Your task to perform on an android device: open app "Flipkart Online Shopping App" (install if not already installed), go to login, and select forgot password Image 0: 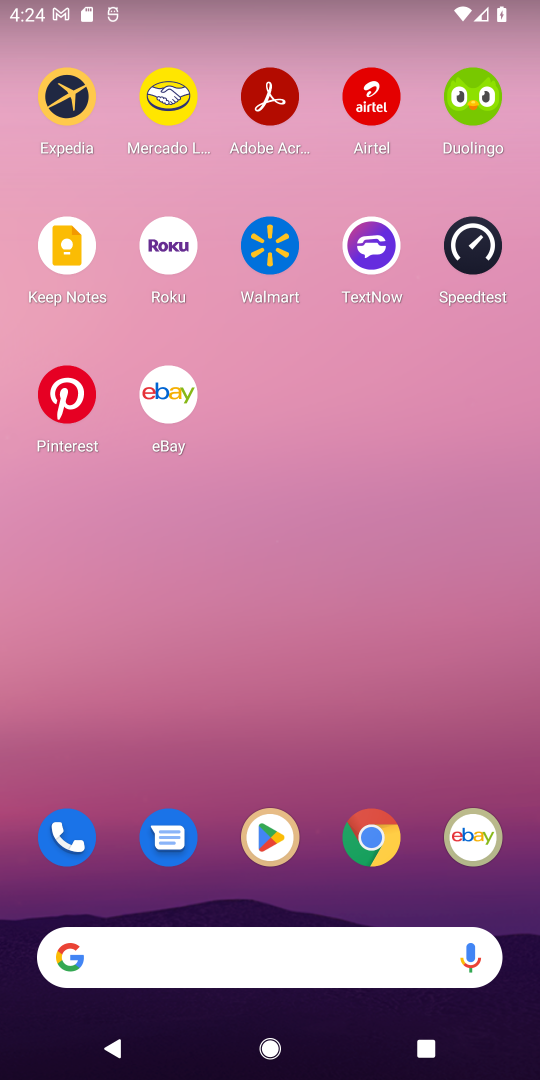
Step 0: press home button
Your task to perform on an android device: open app "Flipkart Online Shopping App" (install if not already installed), go to login, and select forgot password Image 1: 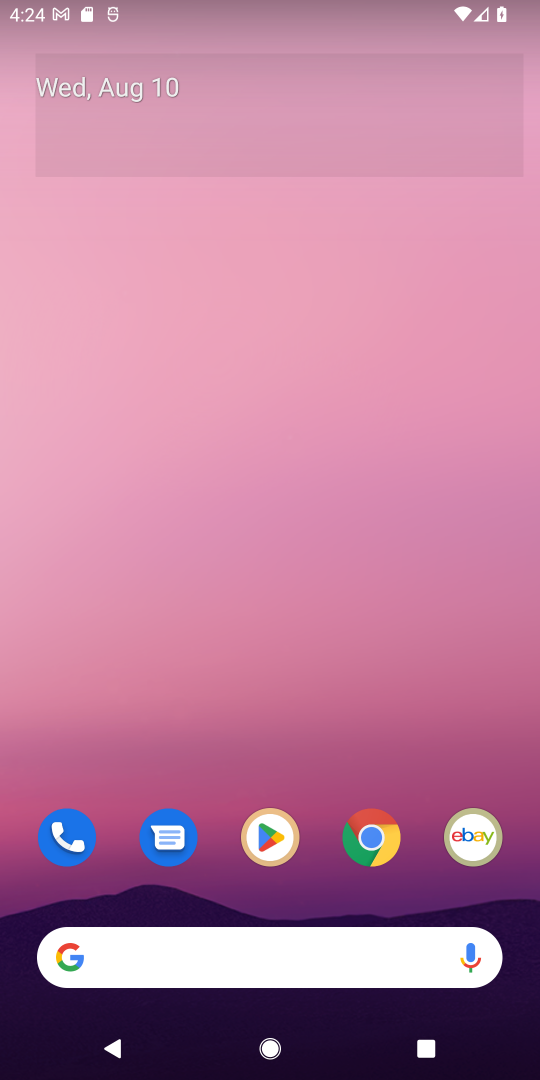
Step 1: click (268, 834)
Your task to perform on an android device: open app "Flipkart Online Shopping App" (install if not already installed), go to login, and select forgot password Image 2: 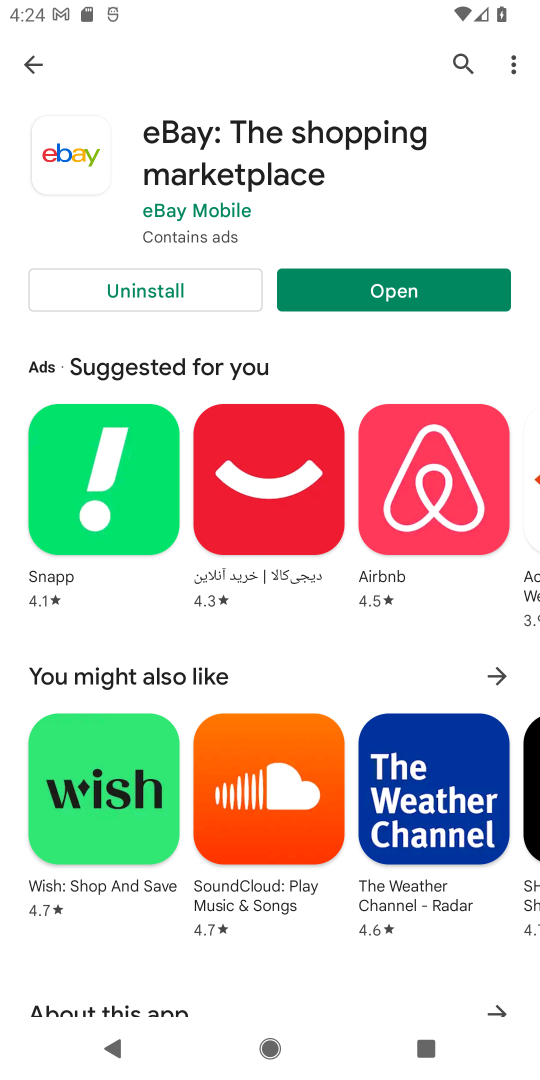
Step 2: click (457, 56)
Your task to perform on an android device: open app "Flipkart Online Shopping App" (install if not already installed), go to login, and select forgot password Image 3: 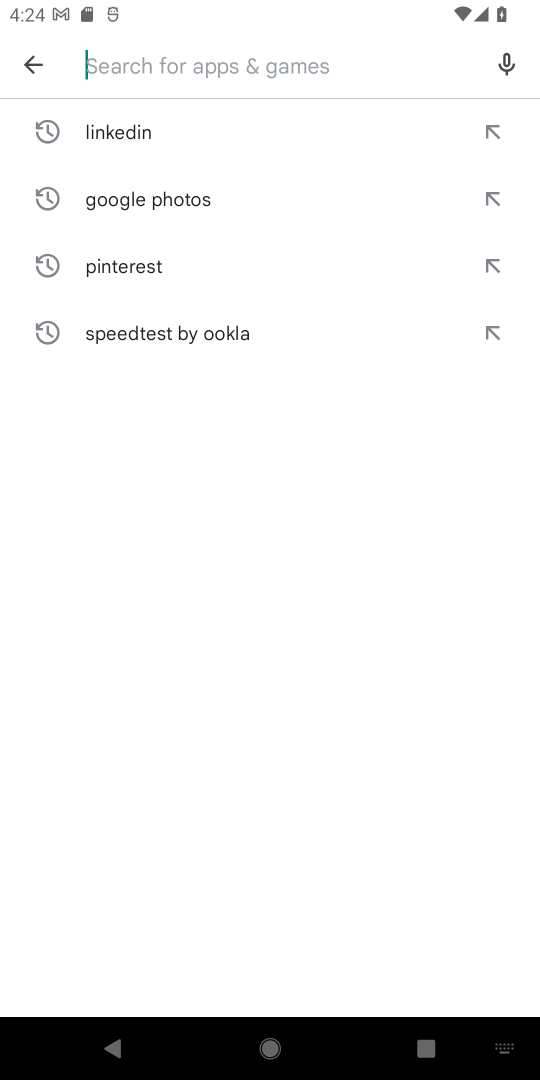
Step 3: type "Flipkart Online Shopping App"
Your task to perform on an android device: open app "Flipkart Online Shopping App" (install if not already installed), go to login, and select forgot password Image 4: 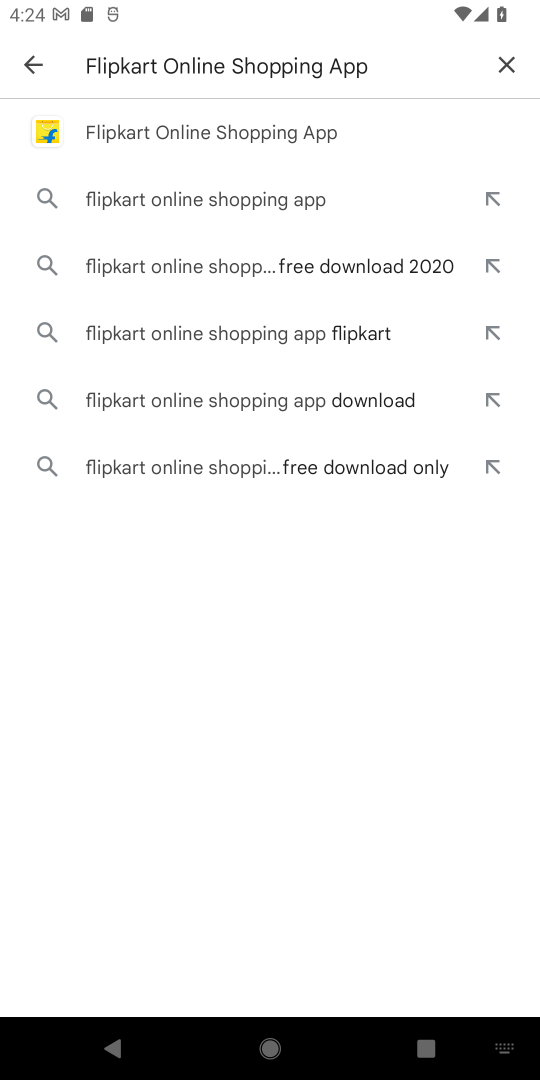
Step 4: click (320, 127)
Your task to perform on an android device: open app "Flipkart Online Shopping App" (install if not already installed), go to login, and select forgot password Image 5: 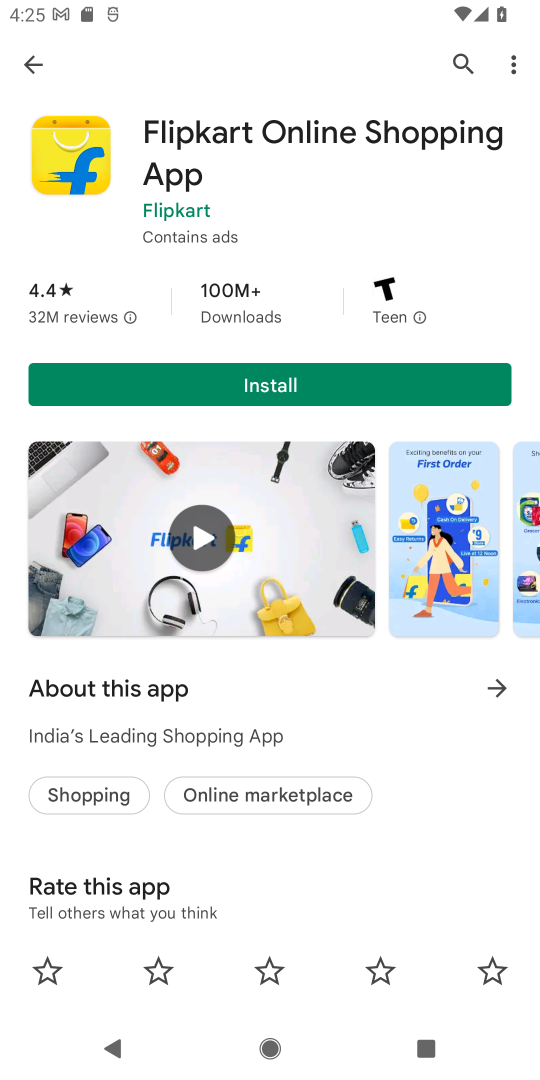
Step 5: click (303, 383)
Your task to perform on an android device: open app "Flipkart Online Shopping App" (install if not already installed), go to login, and select forgot password Image 6: 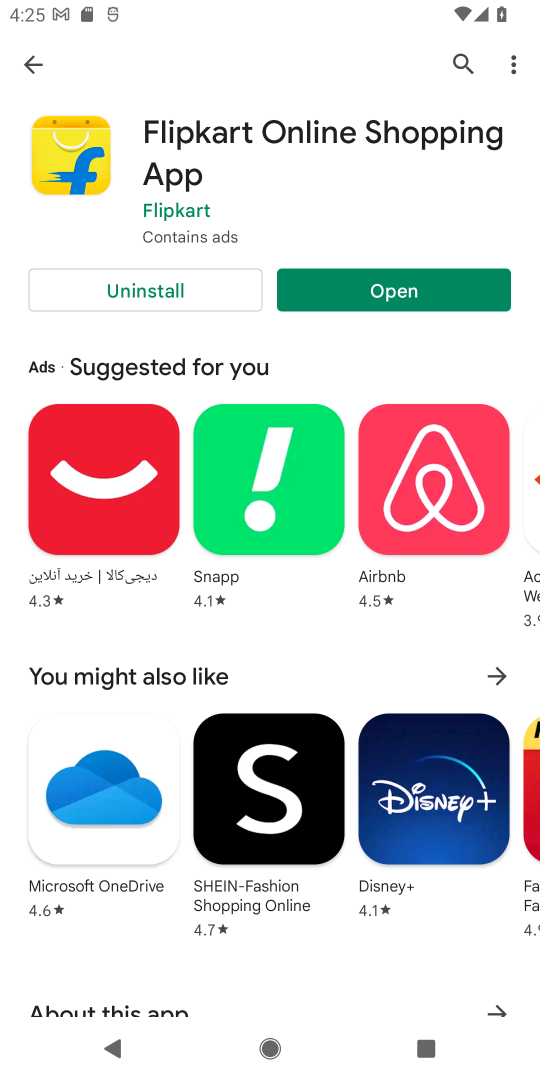
Step 6: click (406, 297)
Your task to perform on an android device: open app "Flipkart Online Shopping App" (install if not already installed), go to login, and select forgot password Image 7: 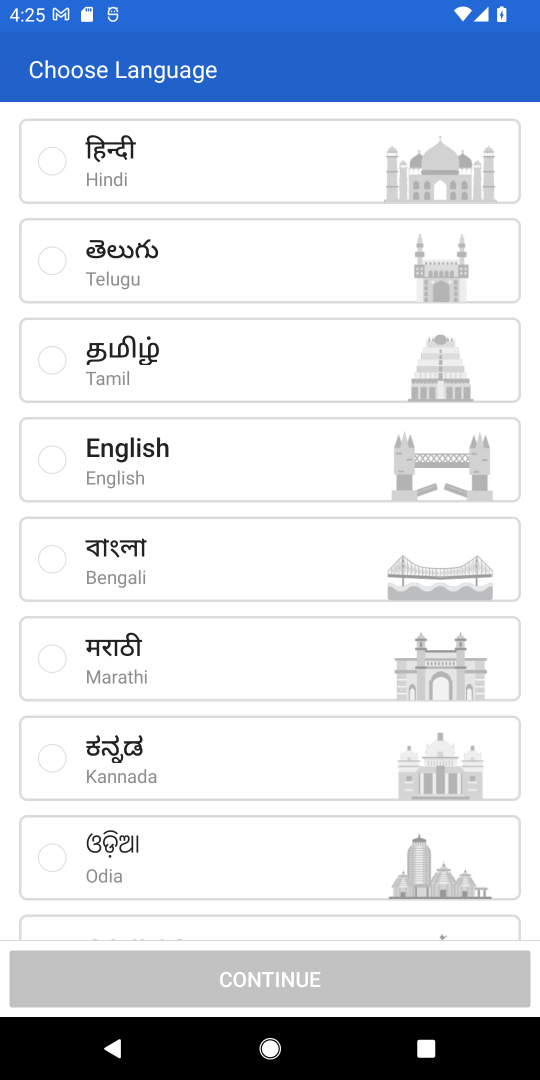
Step 7: click (214, 457)
Your task to perform on an android device: open app "Flipkart Online Shopping App" (install if not already installed), go to login, and select forgot password Image 8: 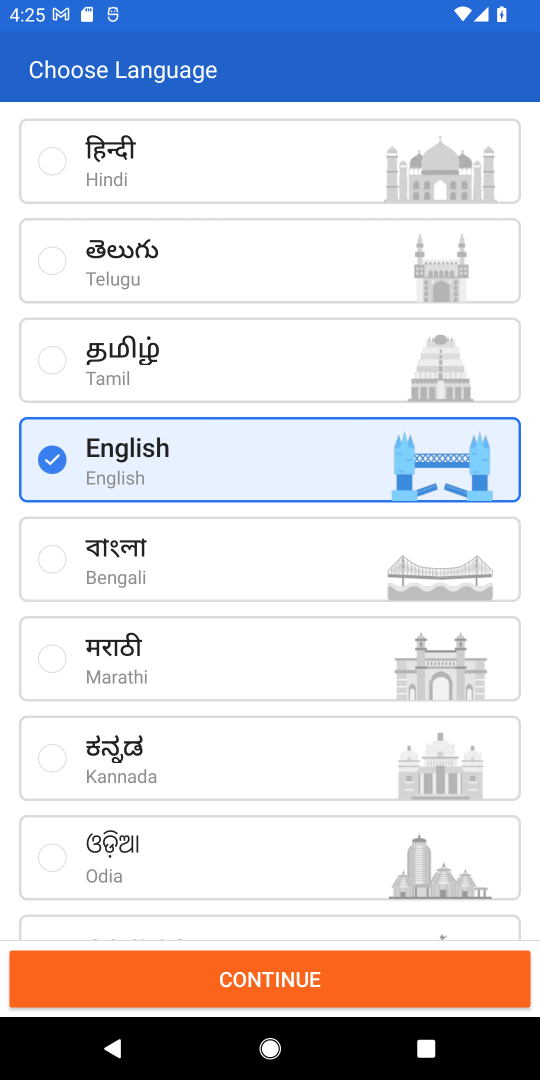
Step 8: click (276, 974)
Your task to perform on an android device: open app "Flipkart Online Shopping App" (install if not already installed), go to login, and select forgot password Image 9: 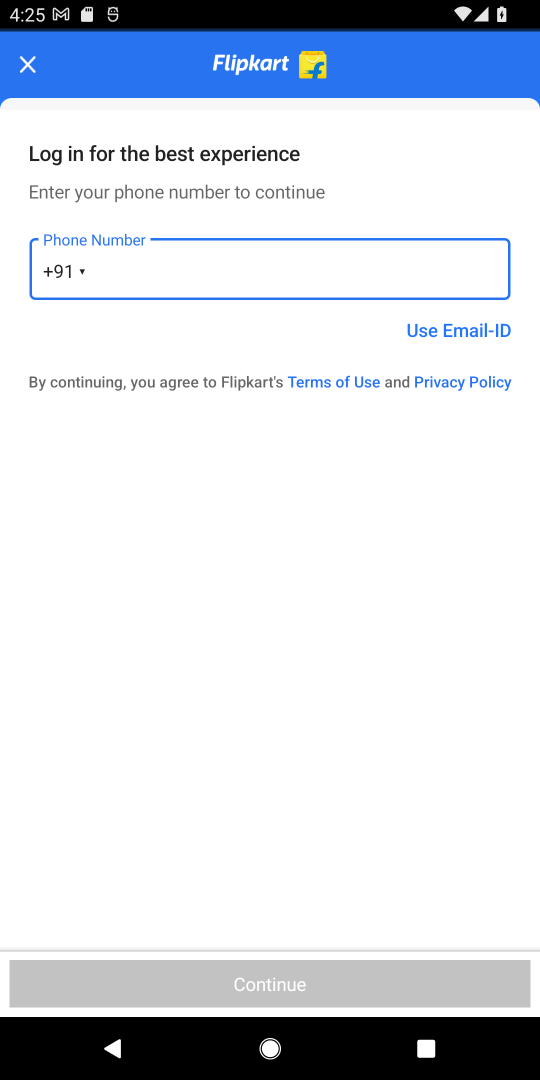
Step 9: task complete